Your task to perform on an android device: allow cookies in the chrome app Image 0: 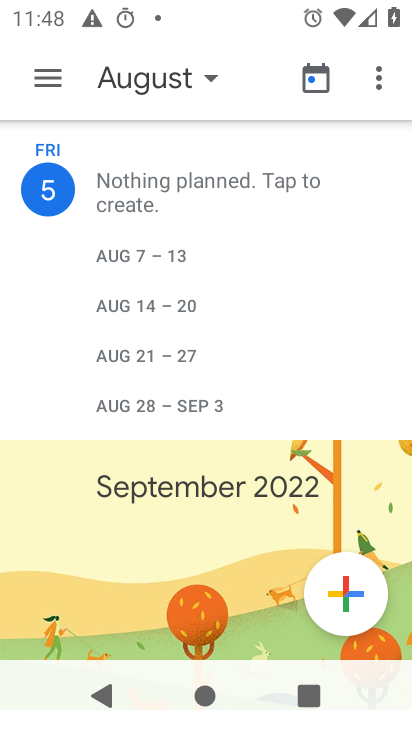
Step 0: press back button
Your task to perform on an android device: allow cookies in the chrome app Image 1: 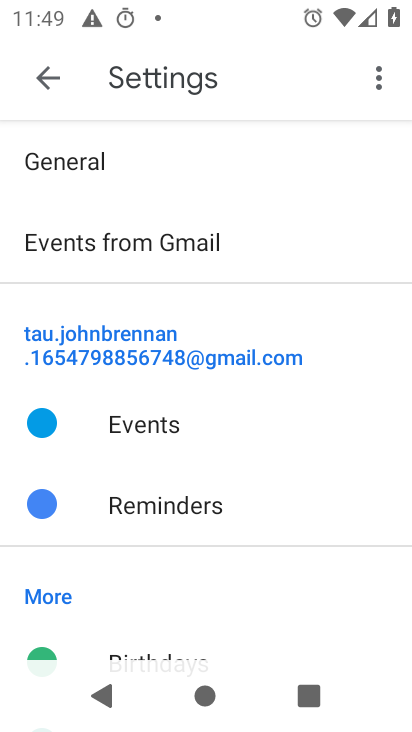
Step 1: press back button
Your task to perform on an android device: allow cookies in the chrome app Image 2: 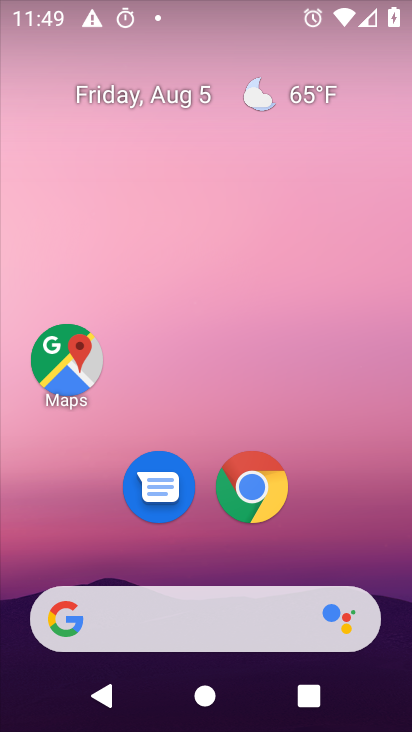
Step 2: click (239, 492)
Your task to perform on an android device: allow cookies in the chrome app Image 3: 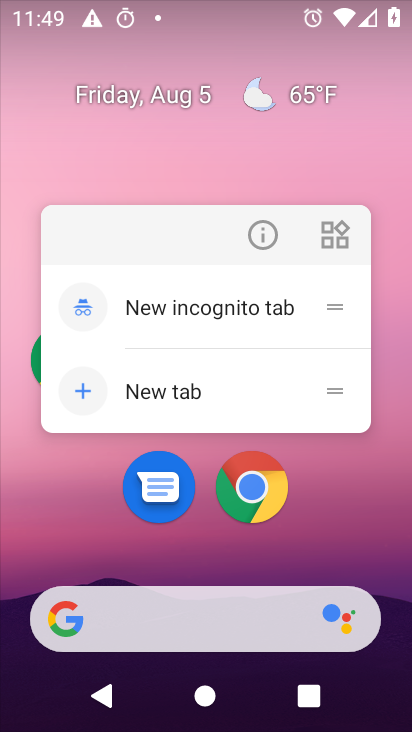
Step 3: click (273, 495)
Your task to perform on an android device: allow cookies in the chrome app Image 4: 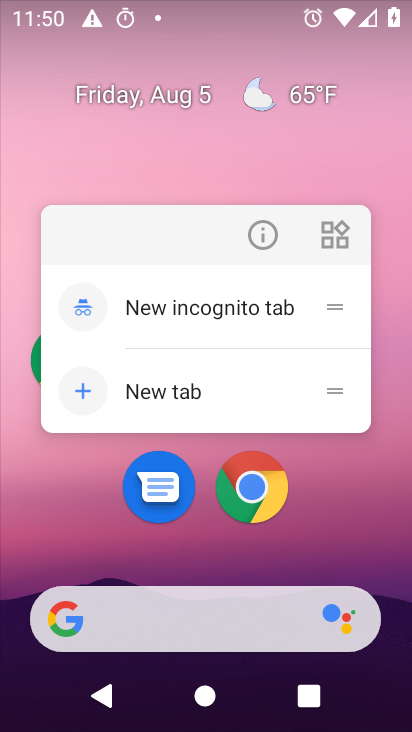
Step 4: click (268, 494)
Your task to perform on an android device: allow cookies in the chrome app Image 5: 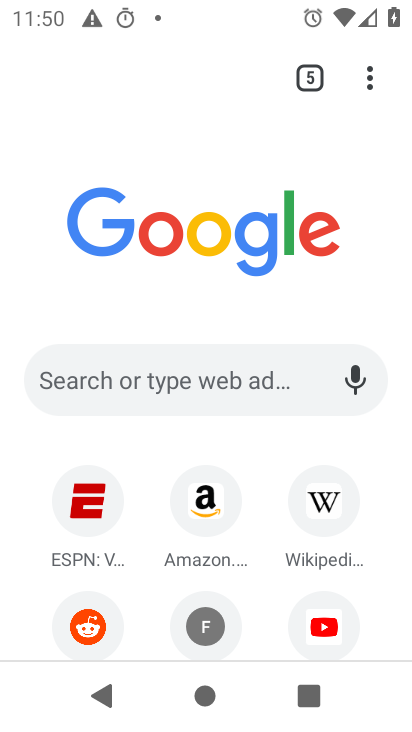
Step 5: drag from (371, 76) to (158, 547)
Your task to perform on an android device: allow cookies in the chrome app Image 6: 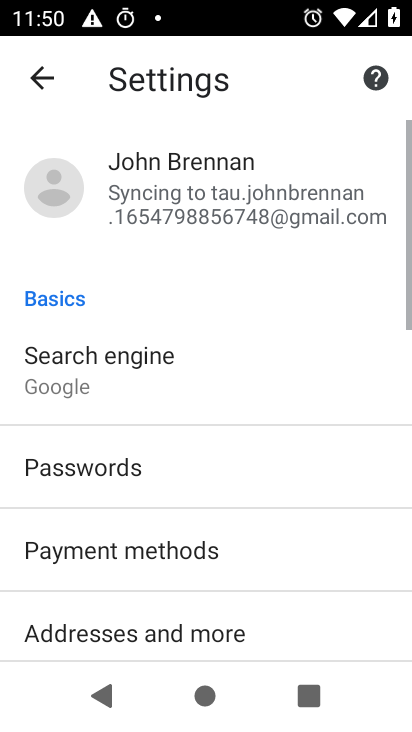
Step 6: drag from (134, 628) to (331, 31)
Your task to perform on an android device: allow cookies in the chrome app Image 7: 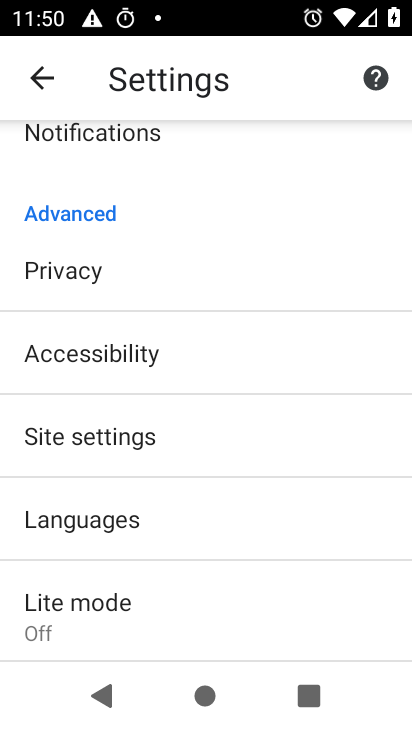
Step 7: click (122, 449)
Your task to perform on an android device: allow cookies in the chrome app Image 8: 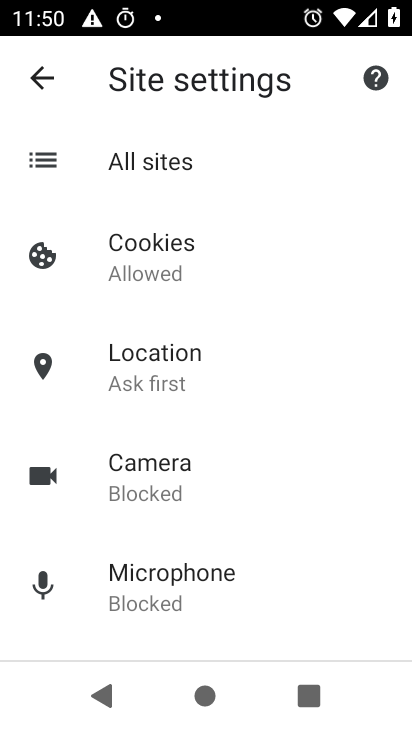
Step 8: click (196, 245)
Your task to perform on an android device: allow cookies in the chrome app Image 9: 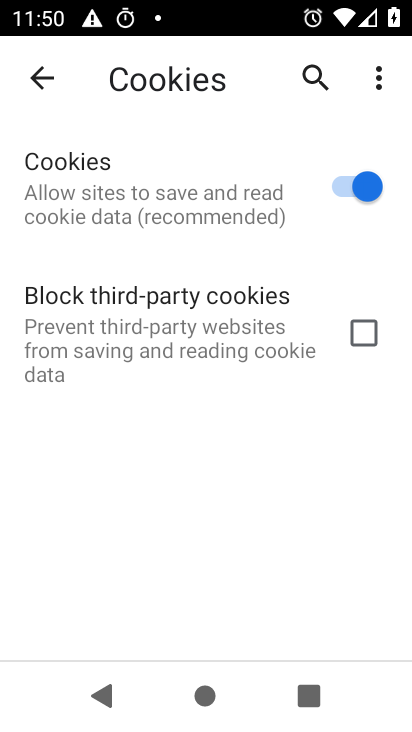
Step 9: task complete